Your task to perform on an android device: show emergency info Image 0: 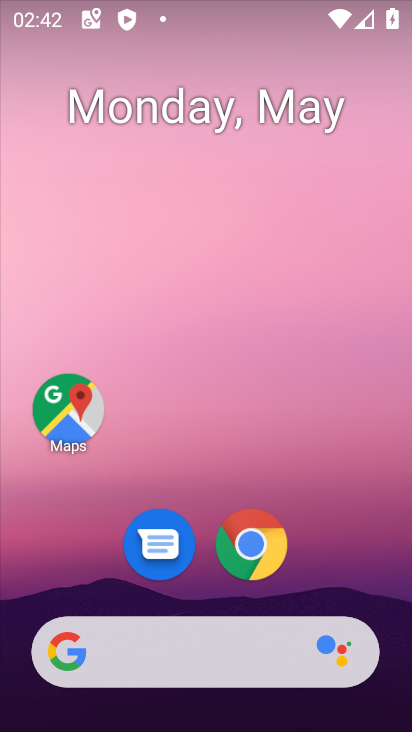
Step 0: drag from (371, 583) to (370, 215)
Your task to perform on an android device: show emergency info Image 1: 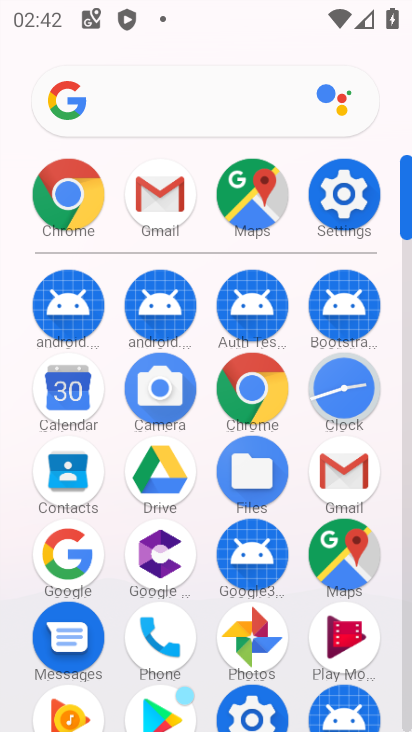
Step 1: click (352, 212)
Your task to perform on an android device: show emergency info Image 2: 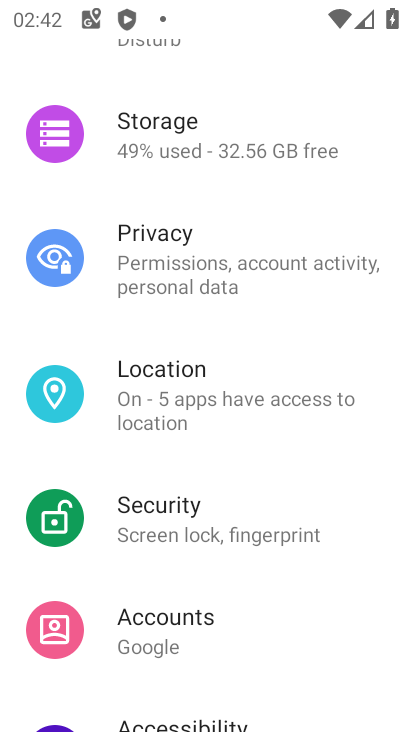
Step 2: drag from (343, 209) to (349, 313)
Your task to perform on an android device: show emergency info Image 3: 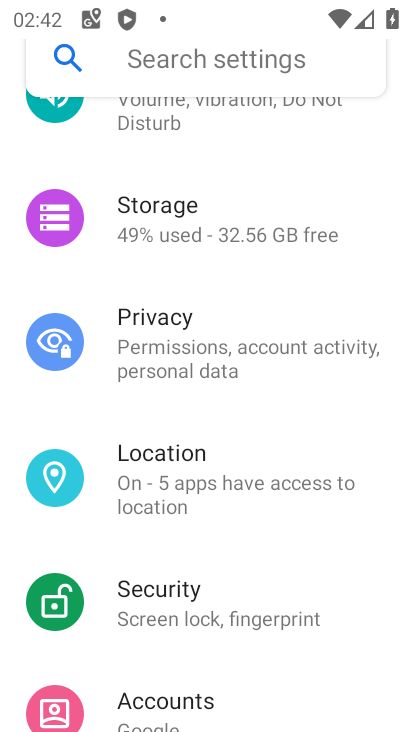
Step 3: drag from (362, 157) to (363, 284)
Your task to perform on an android device: show emergency info Image 4: 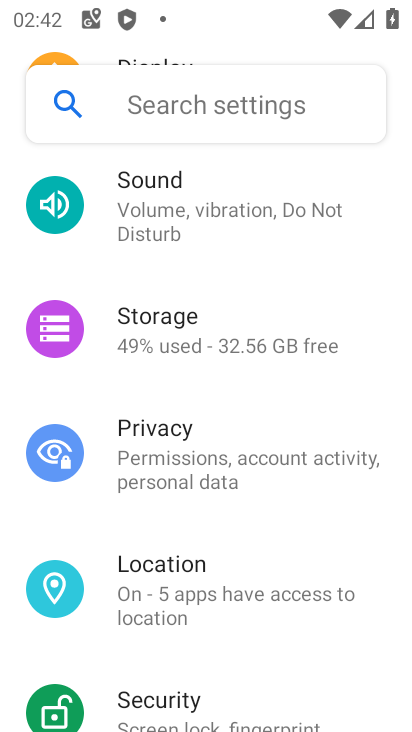
Step 4: drag from (373, 162) to (356, 312)
Your task to perform on an android device: show emergency info Image 5: 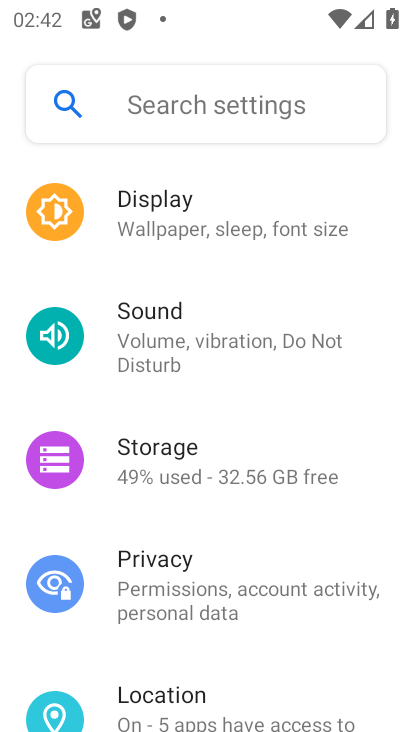
Step 5: drag from (354, 170) to (342, 325)
Your task to perform on an android device: show emergency info Image 6: 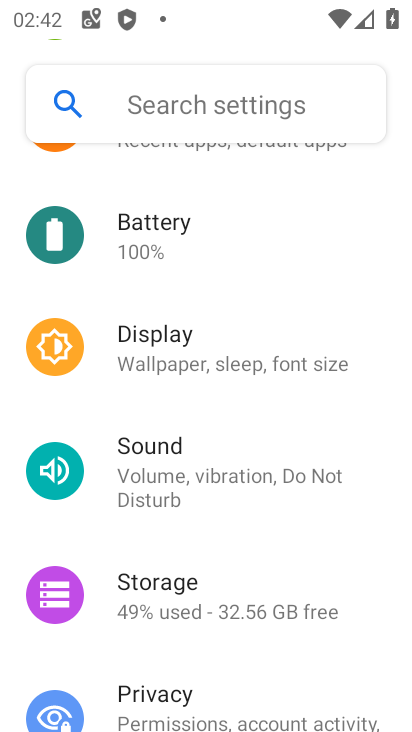
Step 6: drag from (337, 176) to (326, 328)
Your task to perform on an android device: show emergency info Image 7: 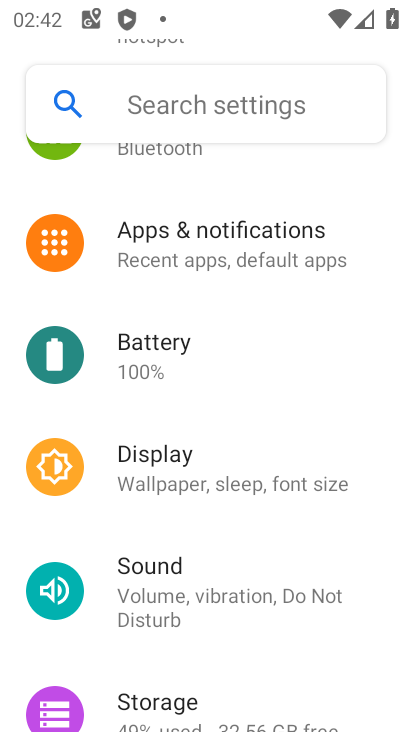
Step 7: drag from (363, 179) to (357, 316)
Your task to perform on an android device: show emergency info Image 8: 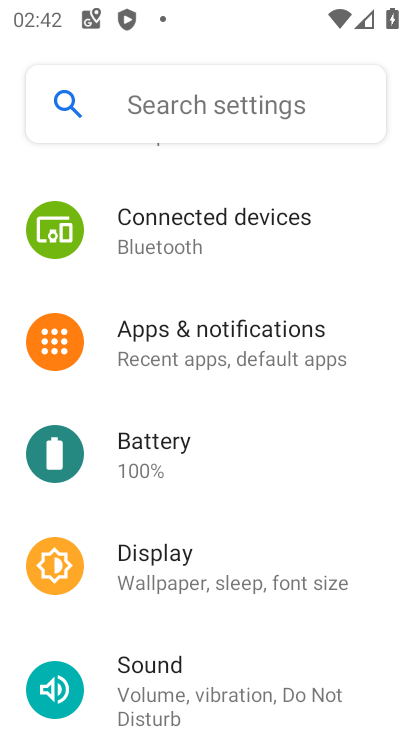
Step 8: drag from (348, 176) to (341, 316)
Your task to perform on an android device: show emergency info Image 9: 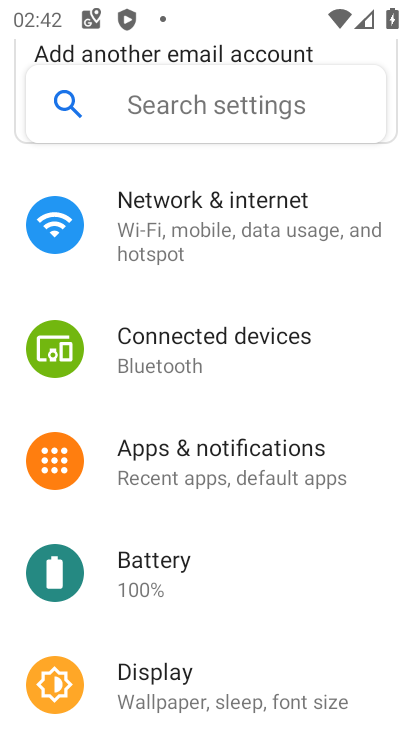
Step 9: drag from (332, 178) to (351, 303)
Your task to perform on an android device: show emergency info Image 10: 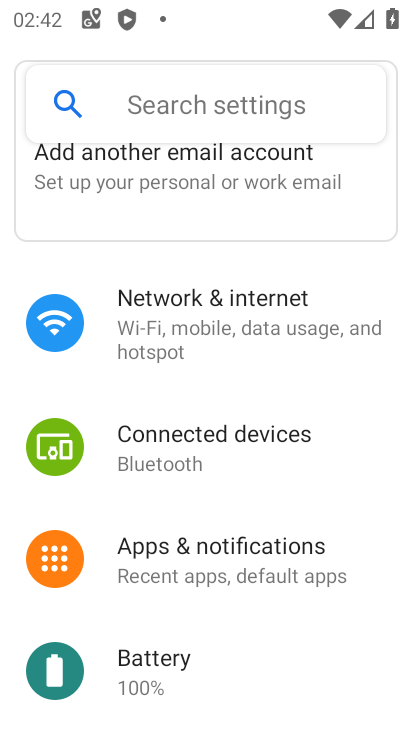
Step 10: drag from (340, 463) to (365, 334)
Your task to perform on an android device: show emergency info Image 11: 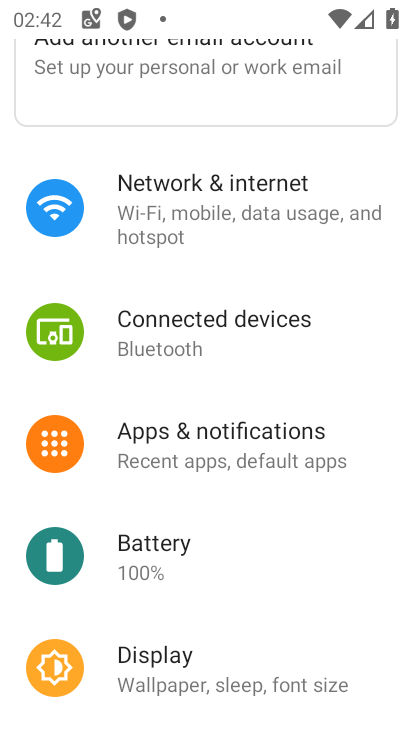
Step 11: drag from (364, 487) to (377, 358)
Your task to perform on an android device: show emergency info Image 12: 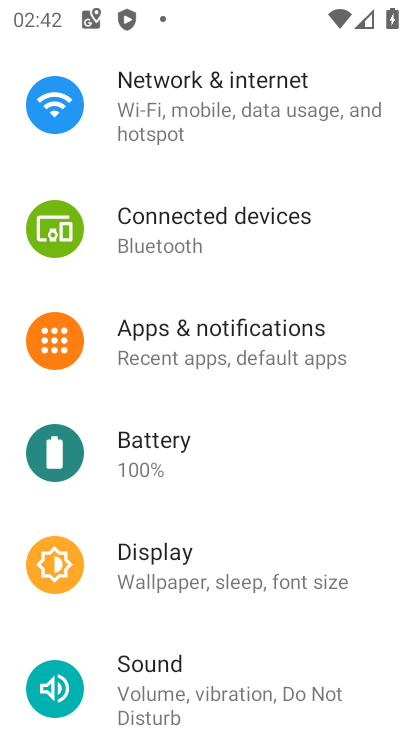
Step 12: drag from (365, 480) to (363, 349)
Your task to perform on an android device: show emergency info Image 13: 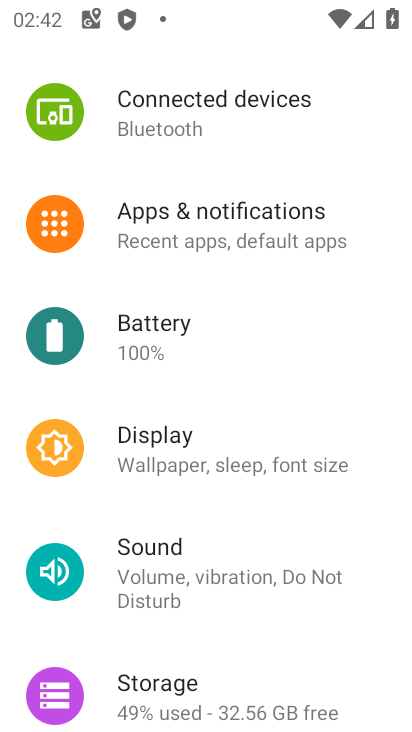
Step 13: drag from (362, 503) to (348, 391)
Your task to perform on an android device: show emergency info Image 14: 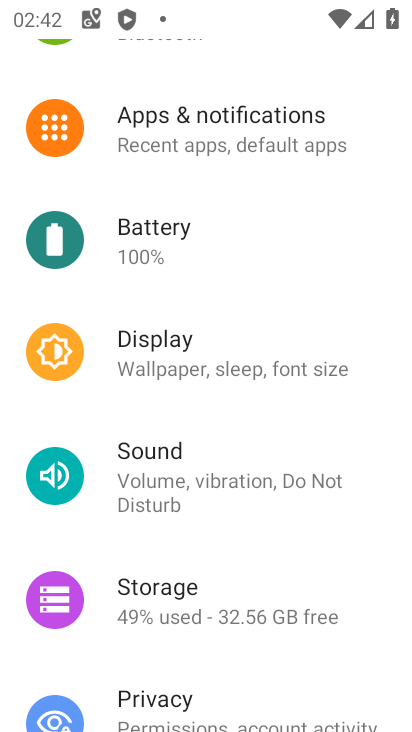
Step 14: drag from (355, 531) to (358, 407)
Your task to perform on an android device: show emergency info Image 15: 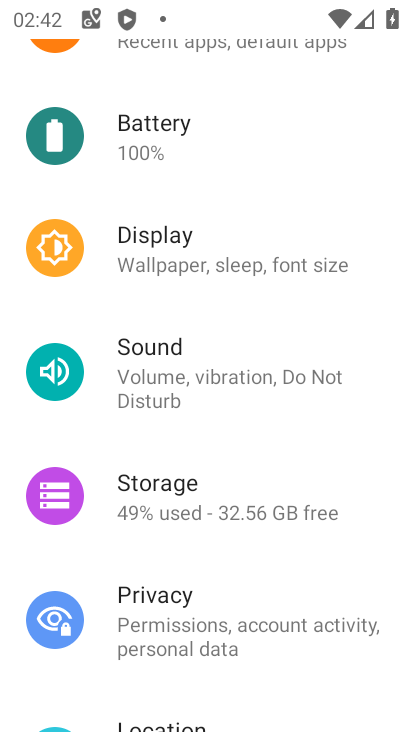
Step 15: drag from (359, 537) to (368, 361)
Your task to perform on an android device: show emergency info Image 16: 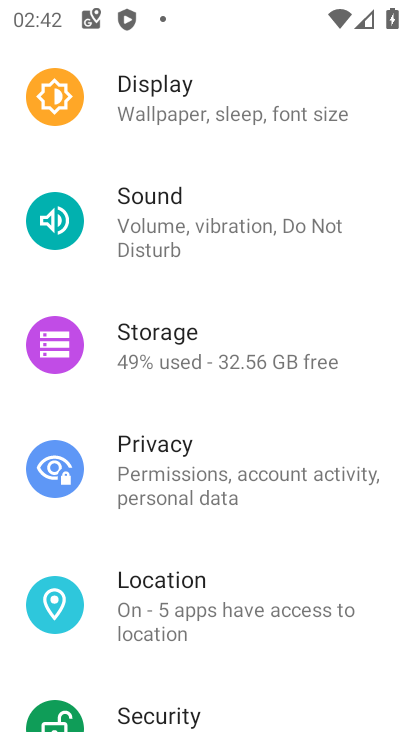
Step 16: drag from (345, 521) to (339, 421)
Your task to perform on an android device: show emergency info Image 17: 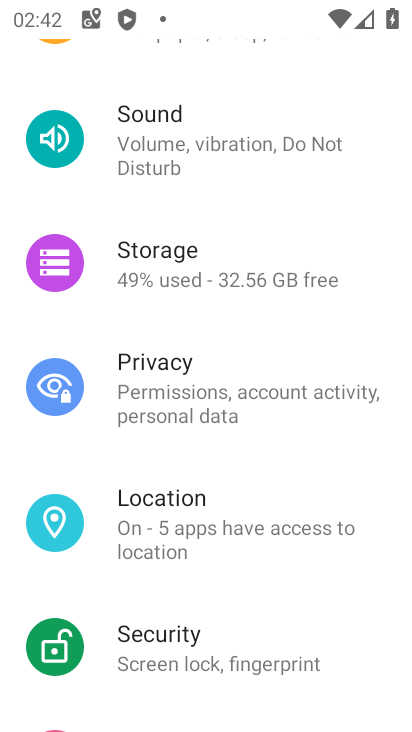
Step 17: drag from (350, 586) to (364, 467)
Your task to perform on an android device: show emergency info Image 18: 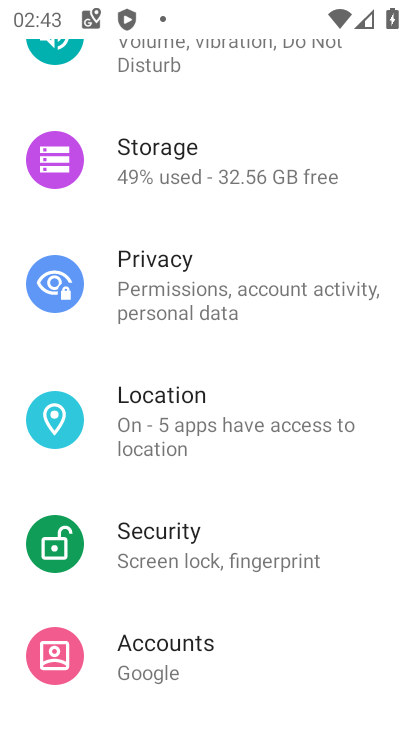
Step 18: drag from (360, 619) to (374, 500)
Your task to perform on an android device: show emergency info Image 19: 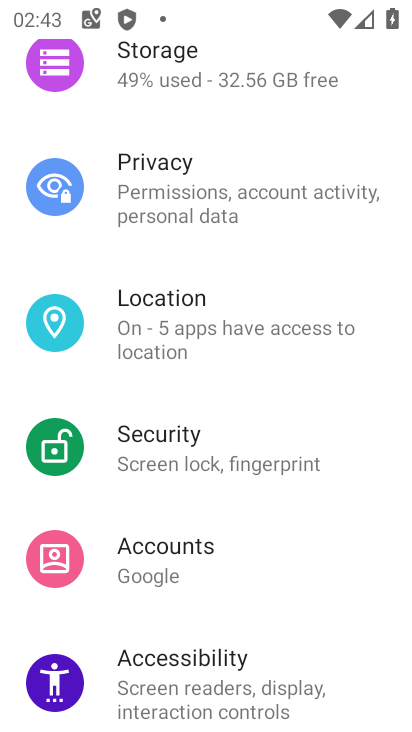
Step 19: drag from (368, 616) to (380, 511)
Your task to perform on an android device: show emergency info Image 20: 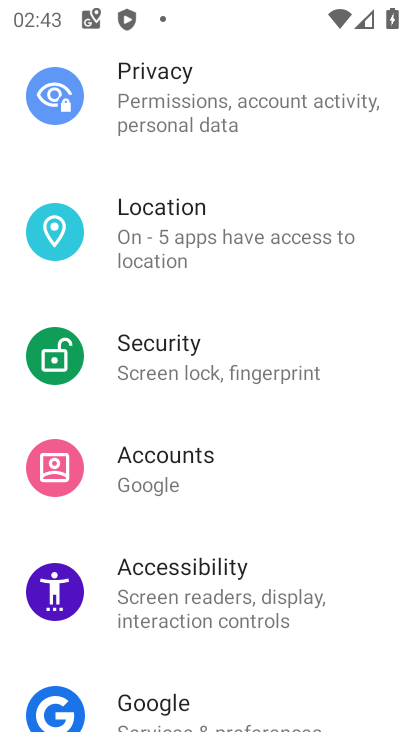
Step 20: drag from (355, 638) to (361, 534)
Your task to perform on an android device: show emergency info Image 21: 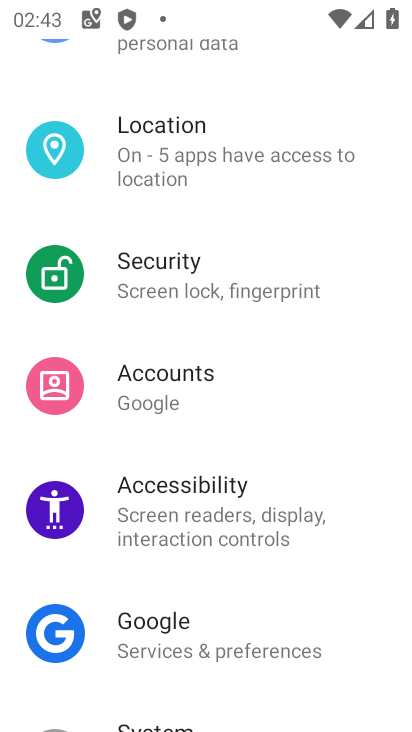
Step 21: drag from (370, 686) to (377, 542)
Your task to perform on an android device: show emergency info Image 22: 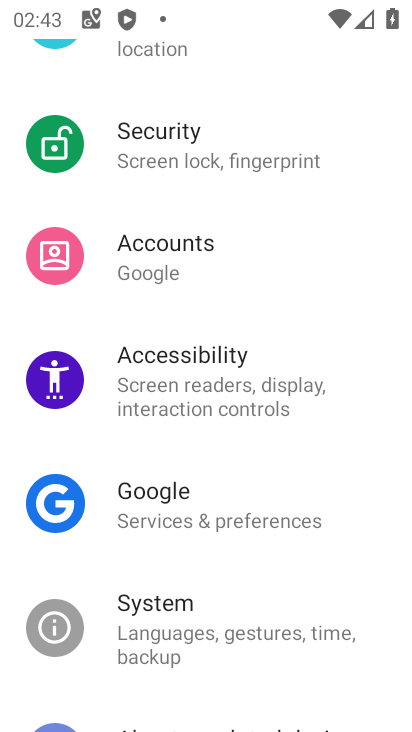
Step 22: drag from (363, 671) to (358, 507)
Your task to perform on an android device: show emergency info Image 23: 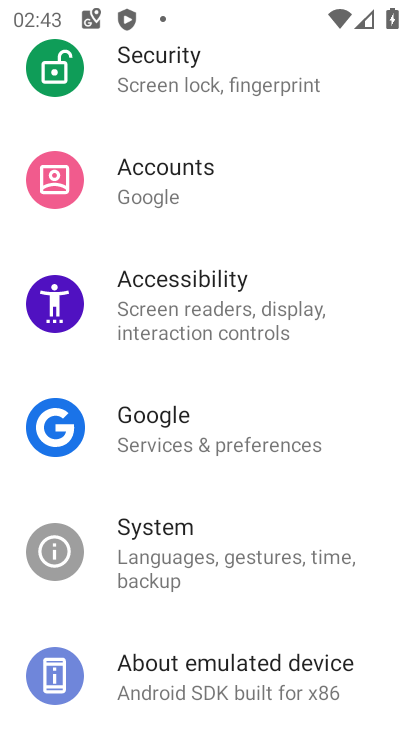
Step 23: click (341, 688)
Your task to perform on an android device: show emergency info Image 24: 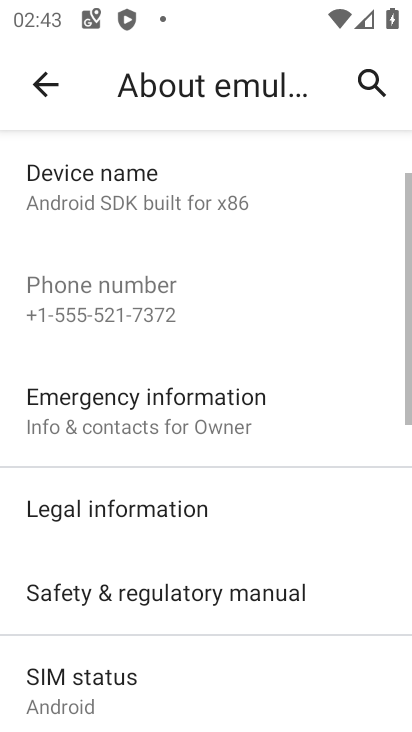
Step 24: click (246, 424)
Your task to perform on an android device: show emergency info Image 25: 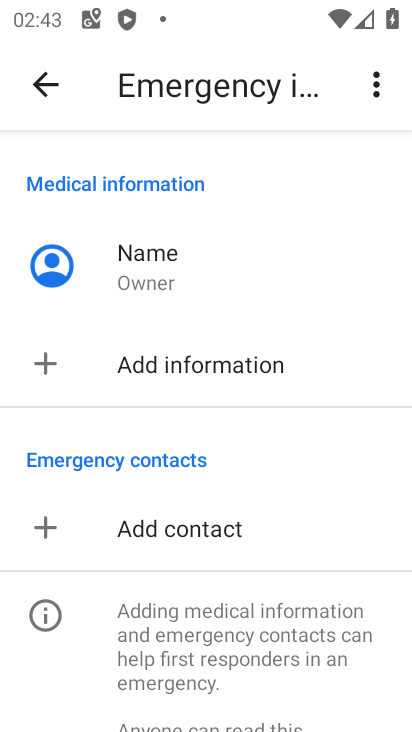
Step 25: task complete